Your task to perform on an android device: set the timer Image 0: 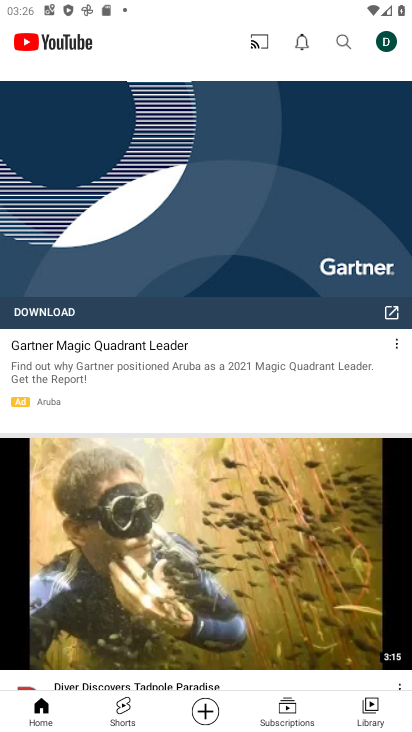
Step 0: press home button
Your task to perform on an android device: set the timer Image 1: 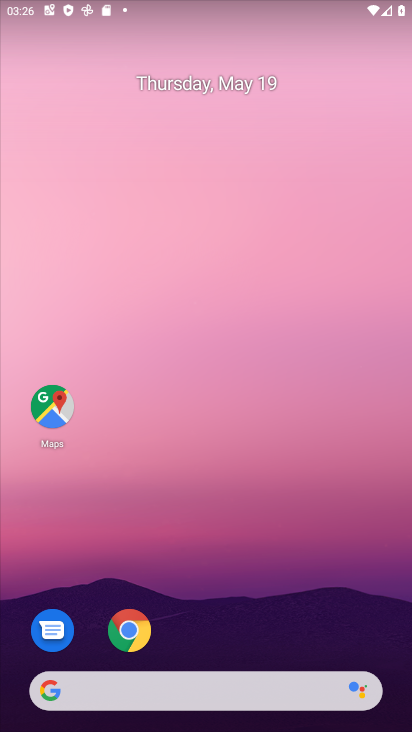
Step 1: drag from (395, 643) to (314, 17)
Your task to perform on an android device: set the timer Image 2: 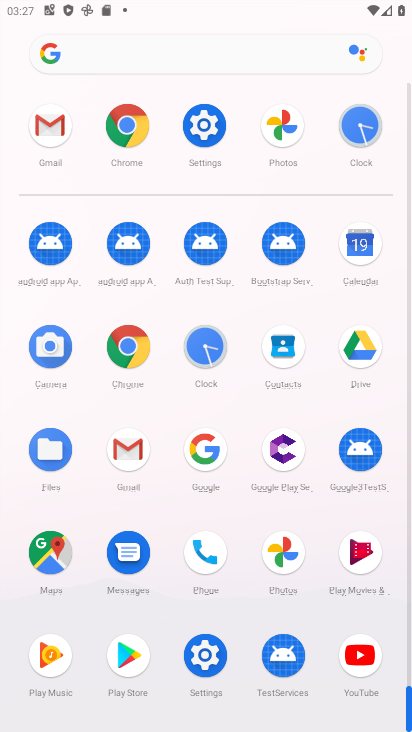
Step 2: click (203, 348)
Your task to perform on an android device: set the timer Image 3: 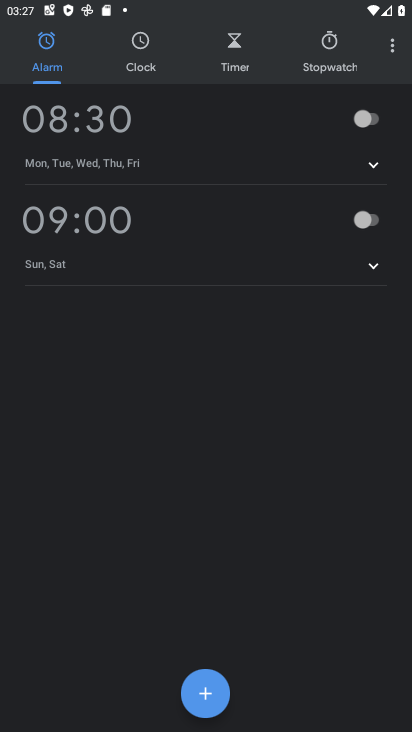
Step 3: click (234, 46)
Your task to perform on an android device: set the timer Image 4: 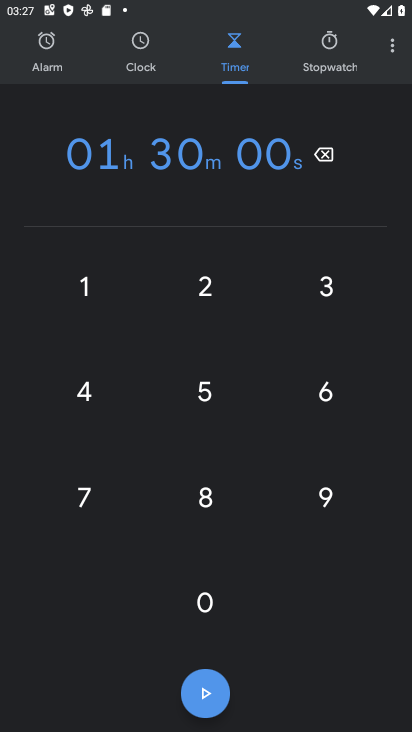
Step 4: task complete